Your task to perform on an android device: Go to ESPN.com Image 0: 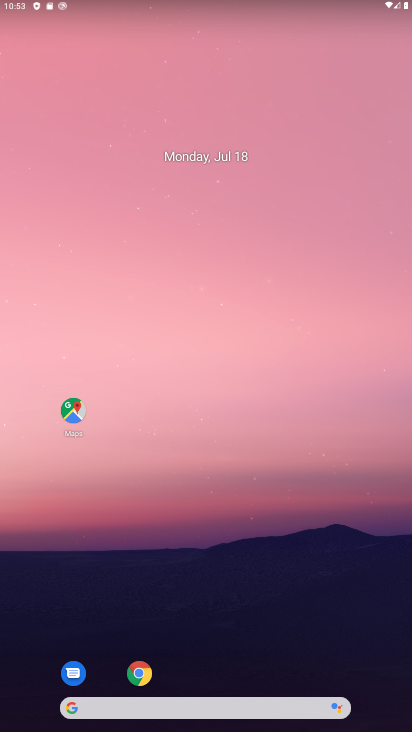
Step 0: press home button
Your task to perform on an android device: Go to ESPN.com Image 1: 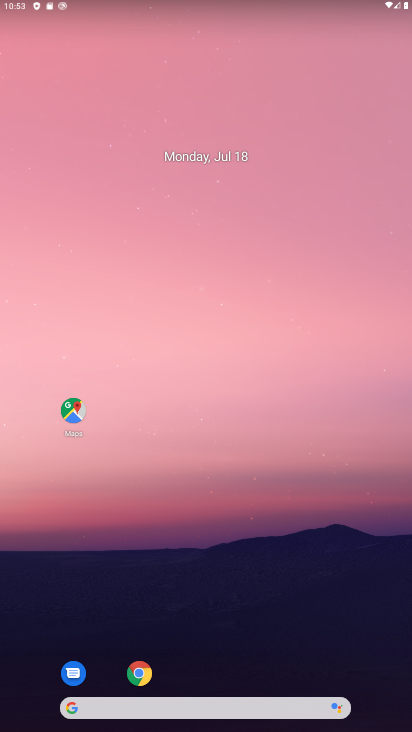
Step 1: click (137, 670)
Your task to perform on an android device: Go to ESPN.com Image 2: 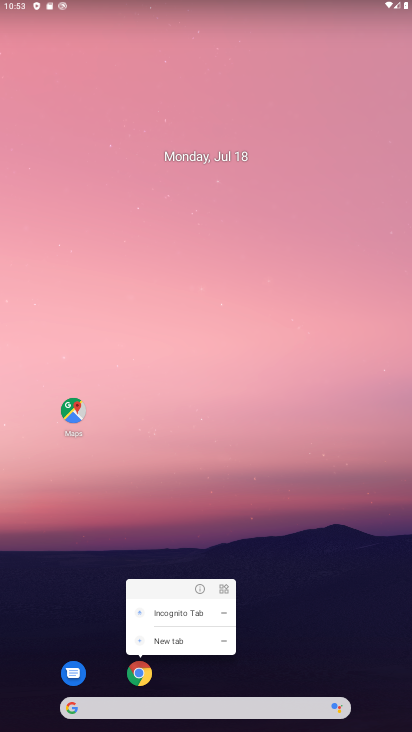
Step 2: click (137, 670)
Your task to perform on an android device: Go to ESPN.com Image 3: 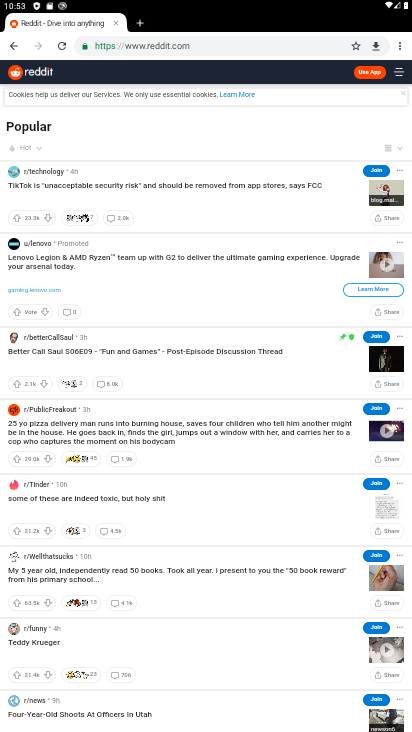
Step 3: click (132, 19)
Your task to perform on an android device: Go to ESPN.com Image 4: 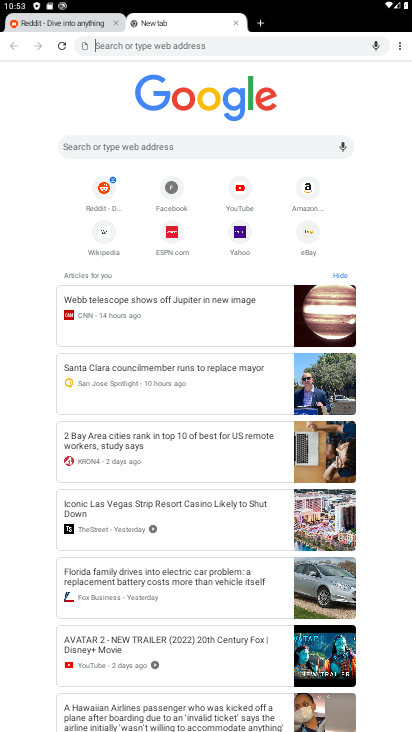
Step 4: click (170, 227)
Your task to perform on an android device: Go to ESPN.com Image 5: 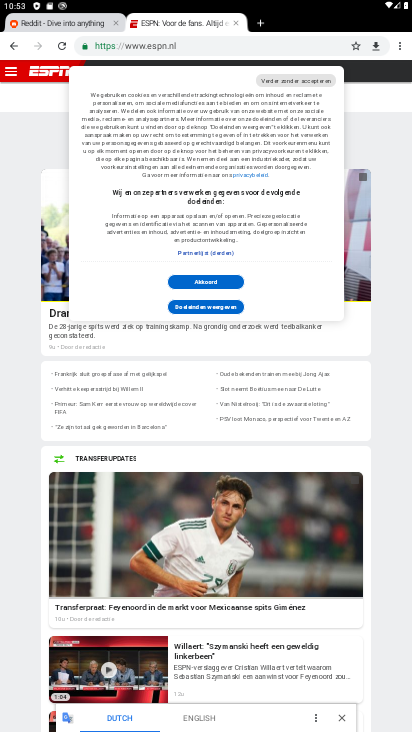
Step 5: click (346, 716)
Your task to perform on an android device: Go to ESPN.com Image 6: 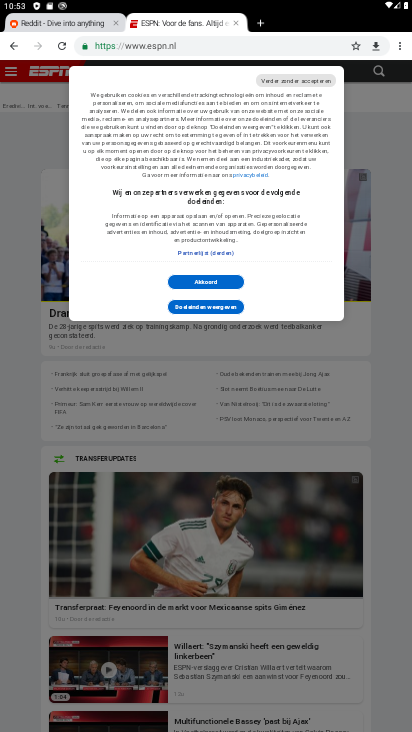
Step 6: click (213, 280)
Your task to perform on an android device: Go to ESPN.com Image 7: 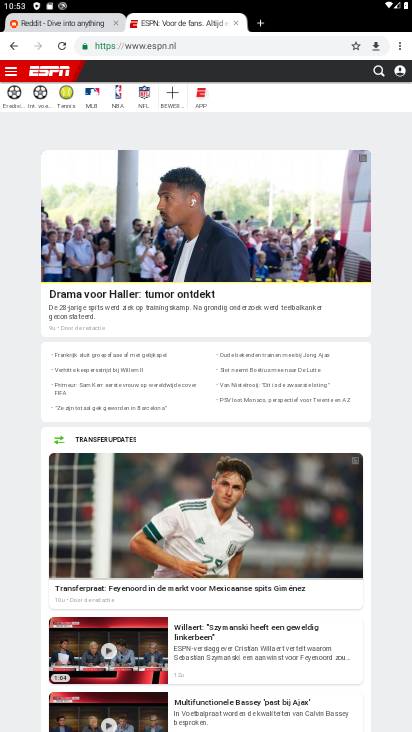
Step 7: task complete